Your task to perform on an android device: Open settings Image 0: 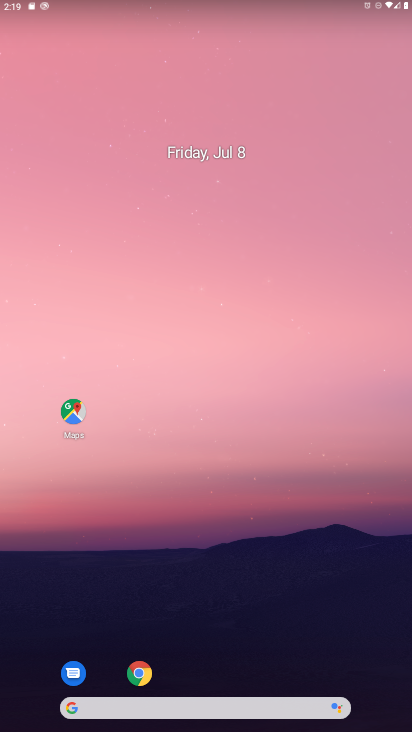
Step 0: drag from (382, 686) to (312, 214)
Your task to perform on an android device: Open settings Image 1: 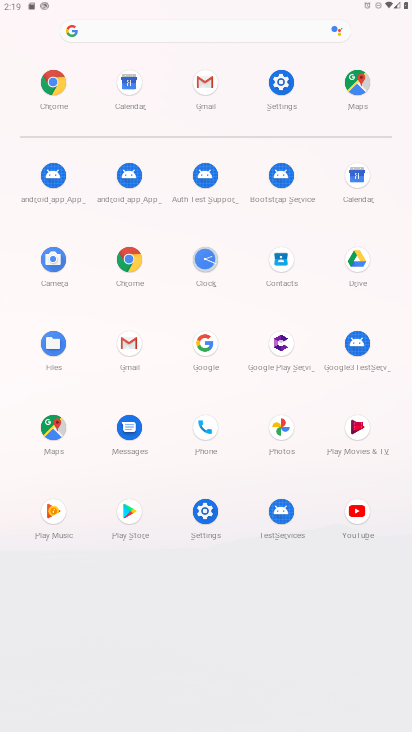
Step 1: click (278, 95)
Your task to perform on an android device: Open settings Image 2: 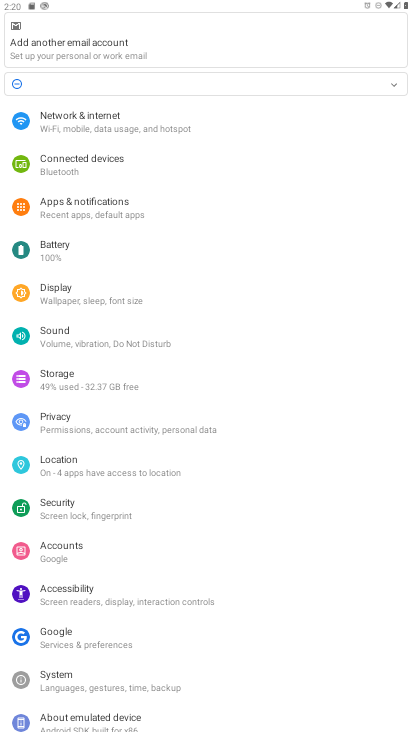
Step 2: task complete